Your task to perform on an android device: open chrome and create a bookmark for the current page Image 0: 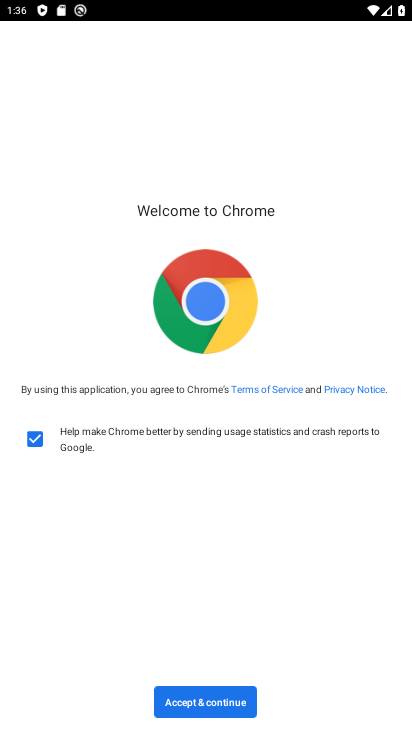
Step 0: press home button
Your task to perform on an android device: open chrome and create a bookmark for the current page Image 1: 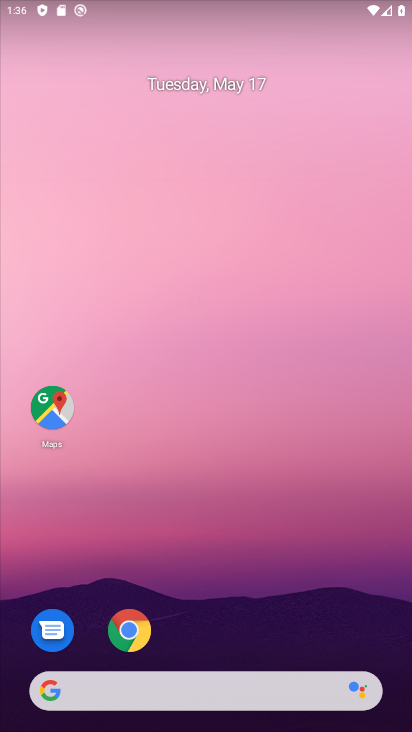
Step 1: drag from (315, 589) to (284, 128)
Your task to perform on an android device: open chrome and create a bookmark for the current page Image 2: 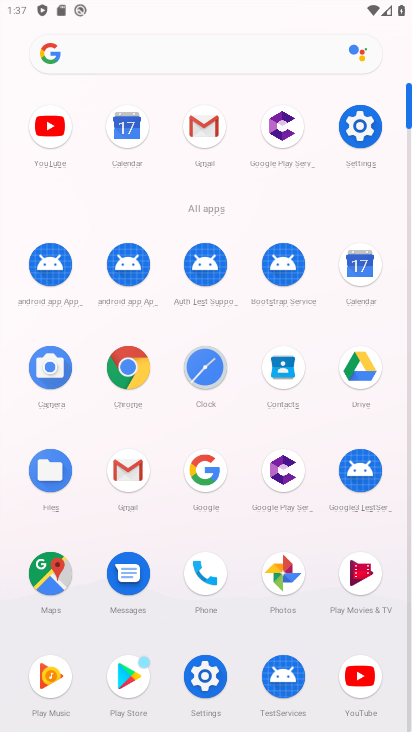
Step 2: click (137, 374)
Your task to perform on an android device: open chrome and create a bookmark for the current page Image 3: 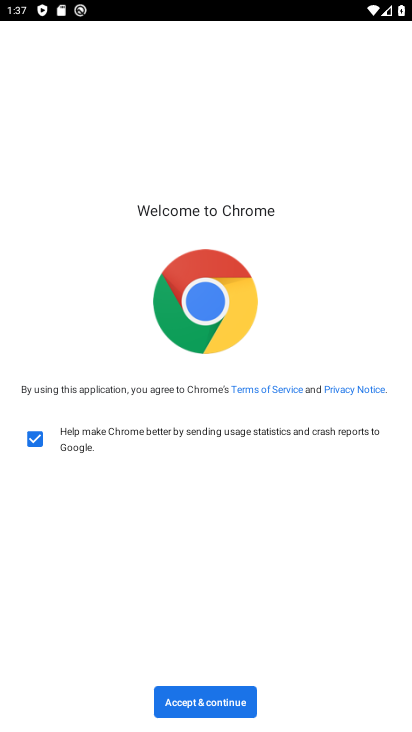
Step 3: click (221, 702)
Your task to perform on an android device: open chrome and create a bookmark for the current page Image 4: 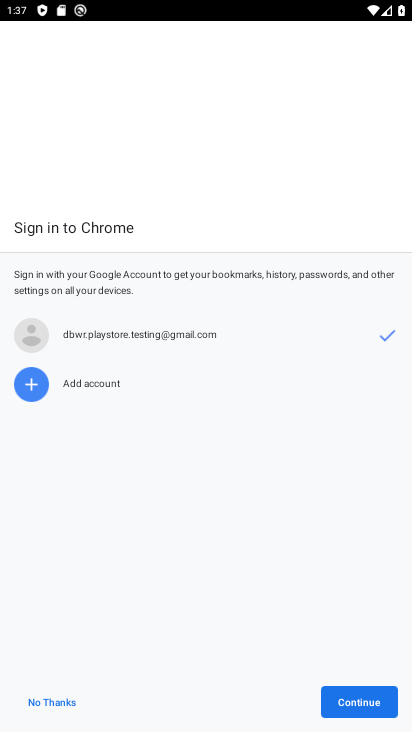
Step 4: click (351, 691)
Your task to perform on an android device: open chrome and create a bookmark for the current page Image 5: 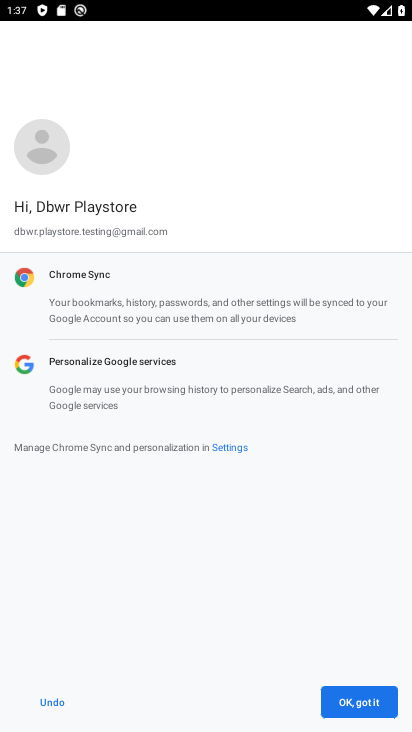
Step 5: click (360, 708)
Your task to perform on an android device: open chrome and create a bookmark for the current page Image 6: 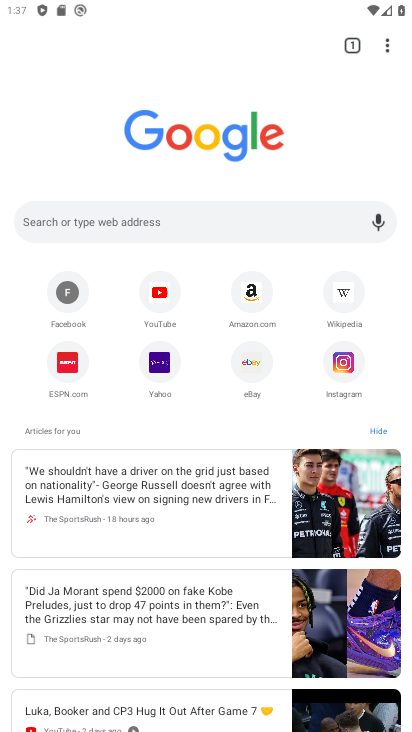
Step 6: click (396, 52)
Your task to perform on an android device: open chrome and create a bookmark for the current page Image 7: 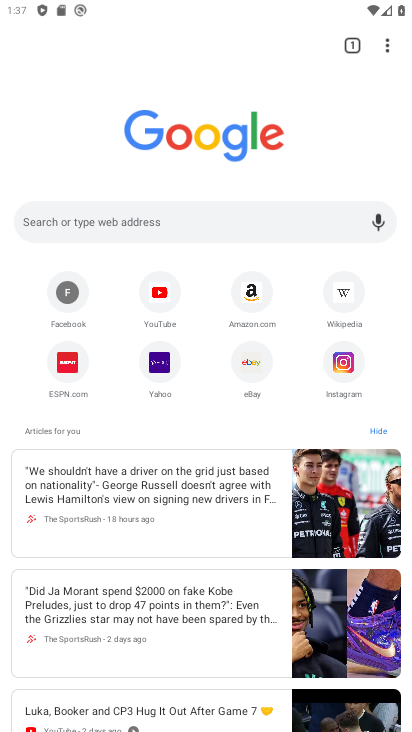
Step 7: click (131, 499)
Your task to perform on an android device: open chrome and create a bookmark for the current page Image 8: 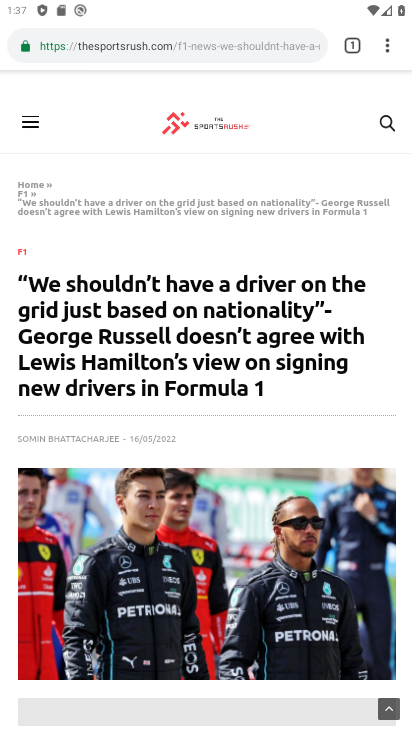
Step 8: task complete